Your task to perform on an android device: see tabs open on other devices in the chrome app Image 0: 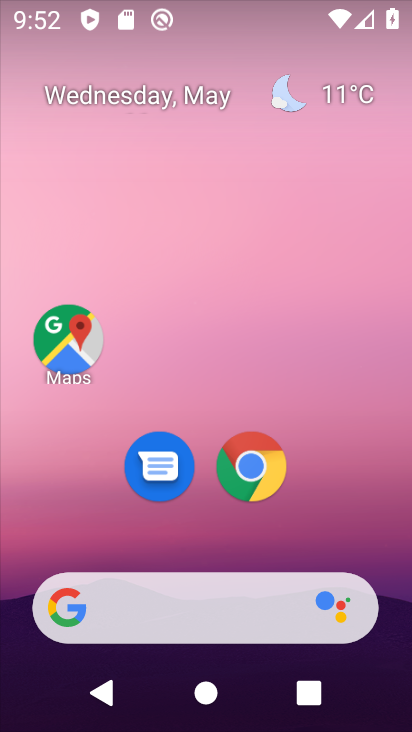
Step 0: click (262, 489)
Your task to perform on an android device: see tabs open on other devices in the chrome app Image 1: 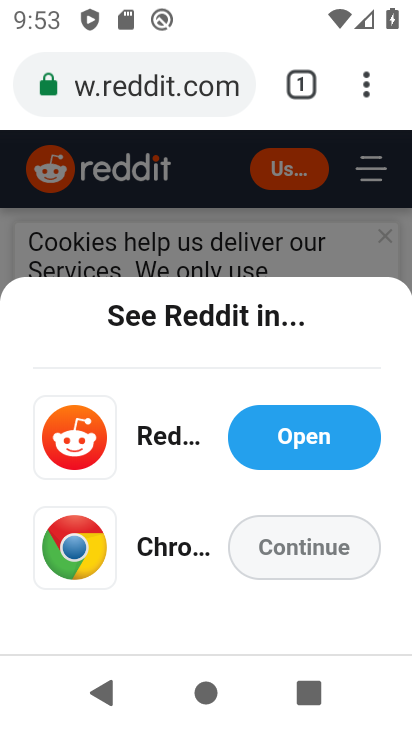
Step 1: click (368, 73)
Your task to perform on an android device: see tabs open on other devices in the chrome app Image 2: 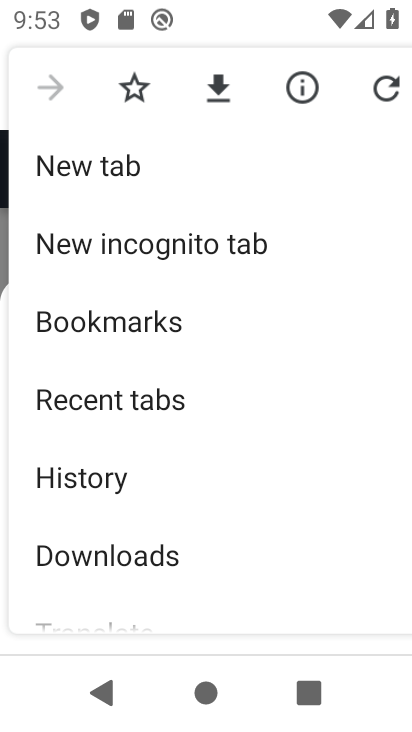
Step 2: click (148, 406)
Your task to perform on an android device: see tabs open on other devices in the chrome app Image 3: 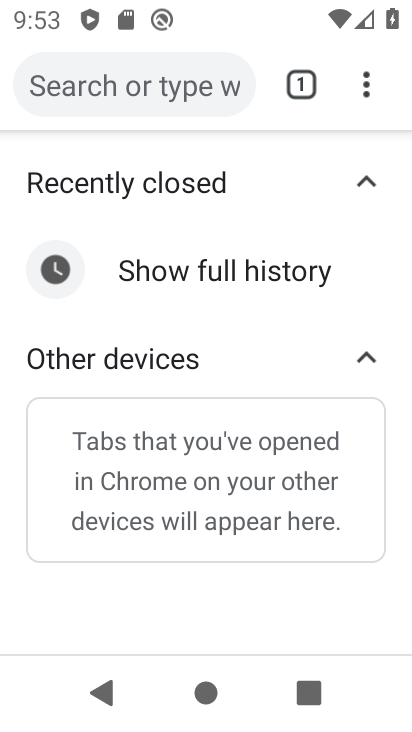
Step 3: drag from (183, 496) to (279, 174)
Your task to perform on an android device: see tabs open on other devices in the chrome app Image 4: 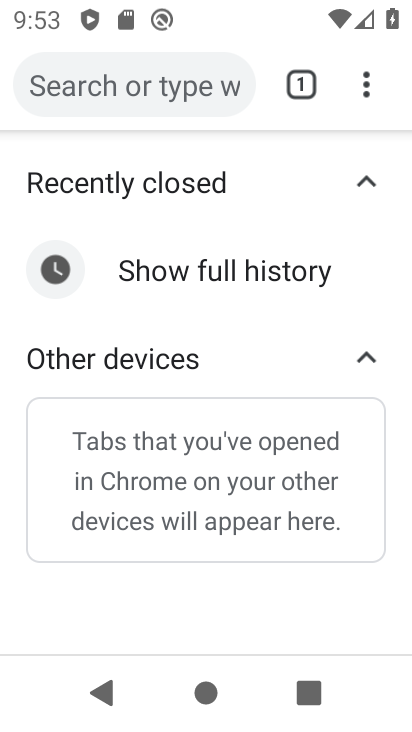
Step 4: click (326, 380)
Your task to perform on an android device: see tabs open on other devices in the chrome app Image 5: 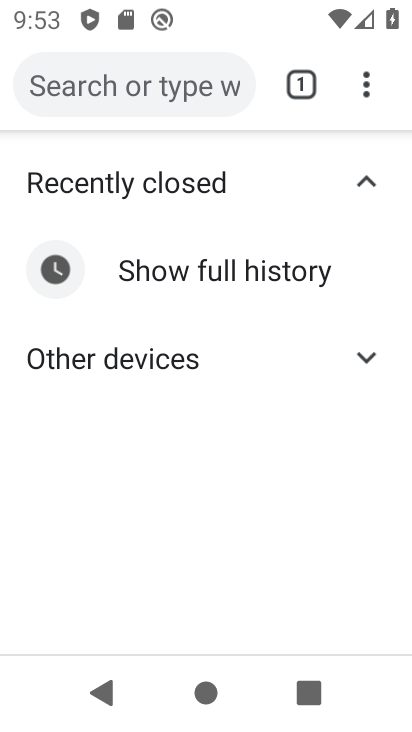
Step 5: click (343, 366)
Your task to perform on an android device: see tabs open on other devices in the chrome app Image 6: 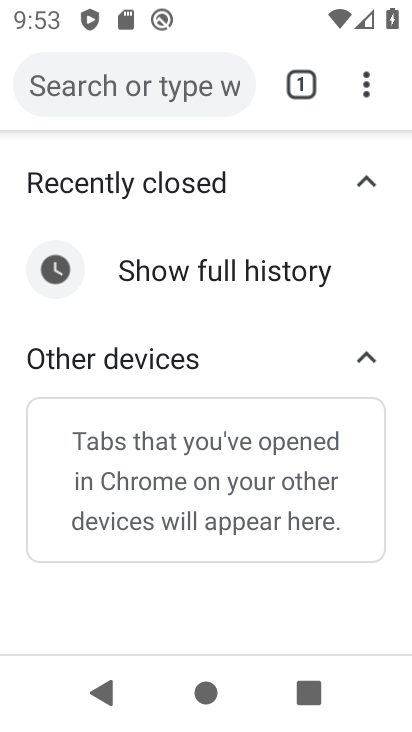
Step 6: task complete